Your task to perform on an android device: Go to notification settings Image 0: 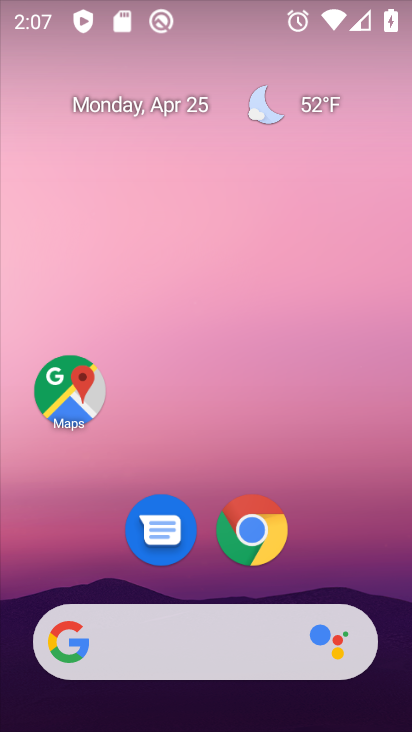
Step 0: drag from (350, 540) to (367, 121)
Your task to perform on an android device: Go to notification settings Image 1: 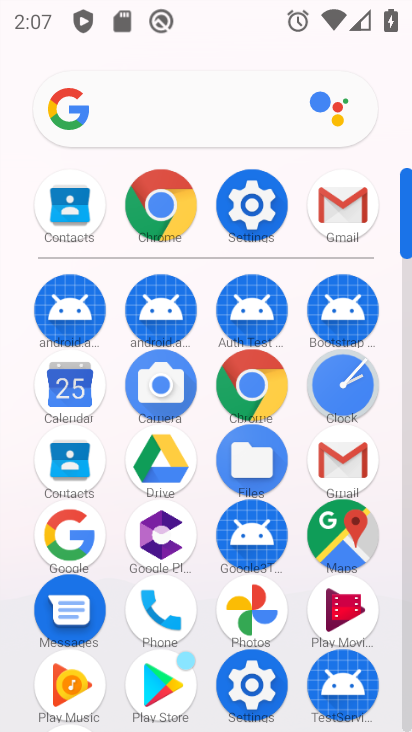
Step 1: click (233, 206)
Your task to perform on an android device: Go to notification settings Image 2: 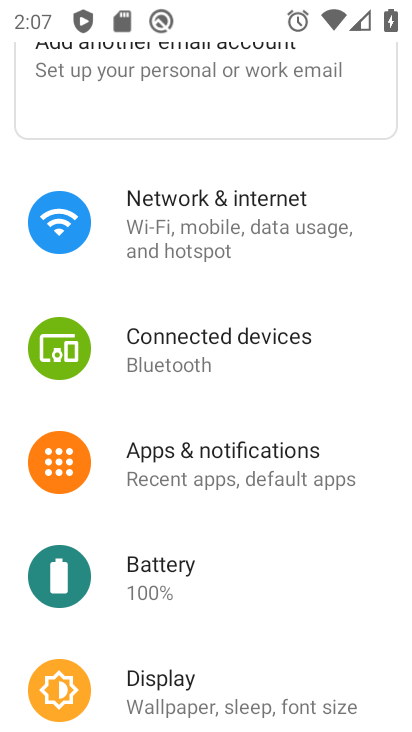
Step 2: task complete